Your task to perform on an android device: toggle priority inbox in the gmail app Image 0: 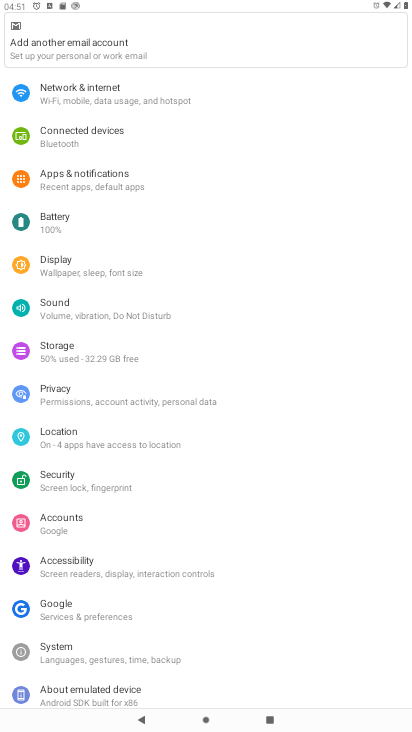
Step 0: press home button
Your task to perform on an android device: toggle priority inbox in the gmail app Image 1: 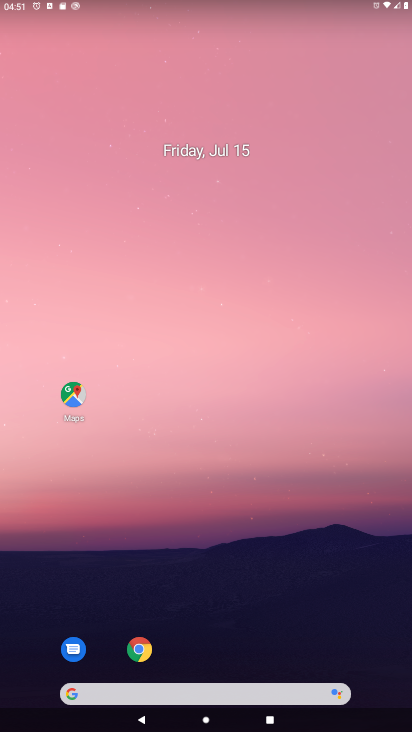
Step 1: drag from (383, 650) to (334, 18)
Your task to perform on an android device: toggle priority inbox in the gmail app Image 2: 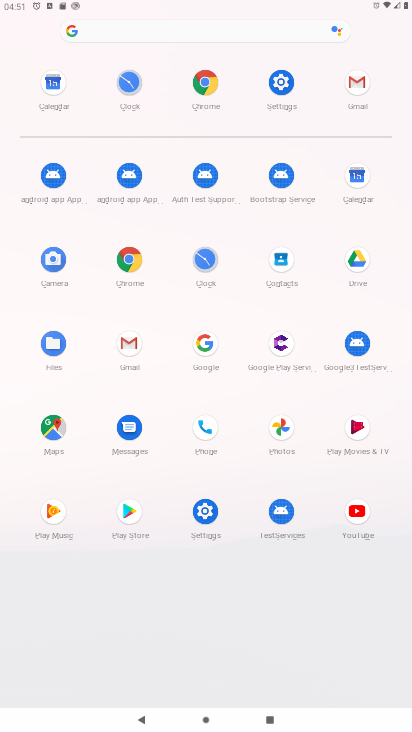
Step 2: click (129, 343)
Your task to perform on an android device: toggle priority inbox in the gmail app Image 3: 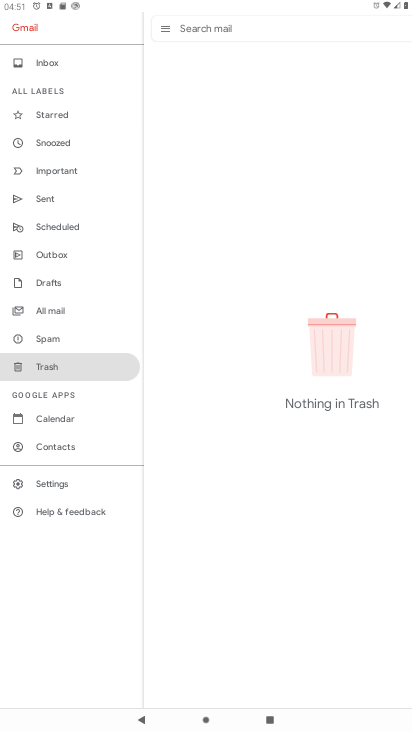
Step 3: click (51, 486)
Your task to perform on an android device: toggle priority inbox in the gmail app Image 4: 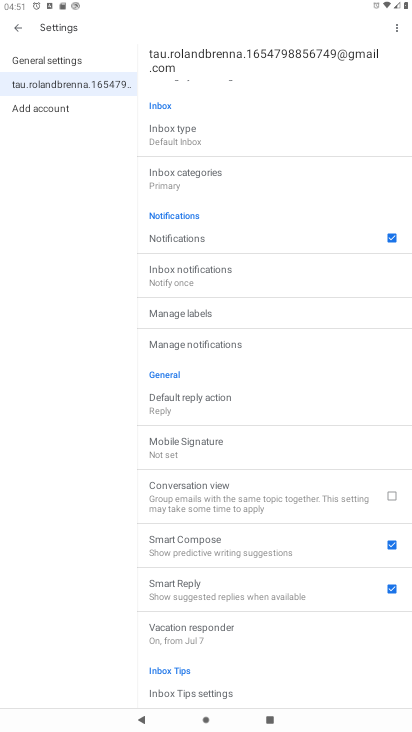
Step 4: click (167, 137)
Your task to perform on an android device: toggle priority inbox in the gmail app Image 5: 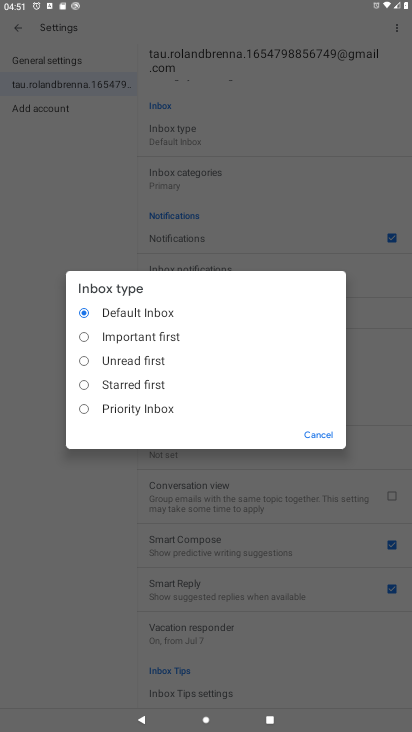
Step 5: click (82, 413)
Your task to perform on an android device: toggle priority inbox in the gmail app Image 6: 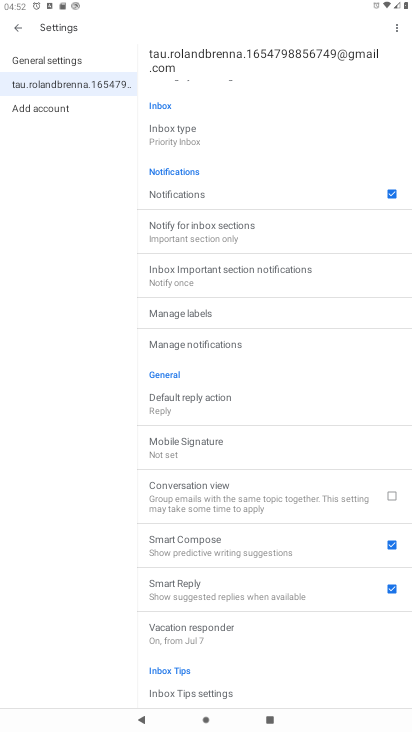
Step 6: task complete